Your task to perform on an android device: clear history in the chrome app Image 0: 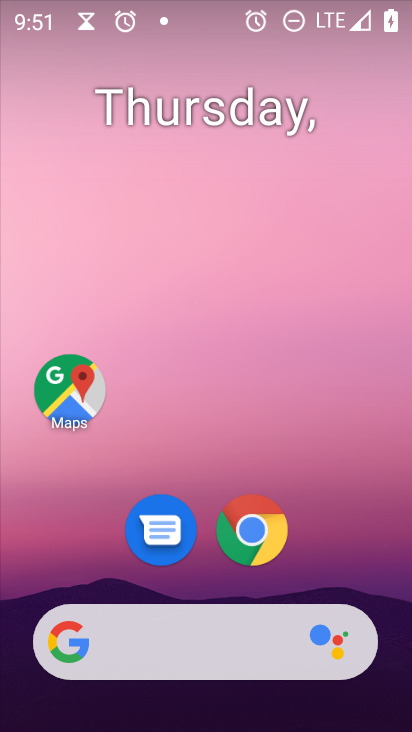
Step 0: drag from (339, 527) to (260, 86)
Your task to perform on an android device: clear history in the chrome app Image 1: 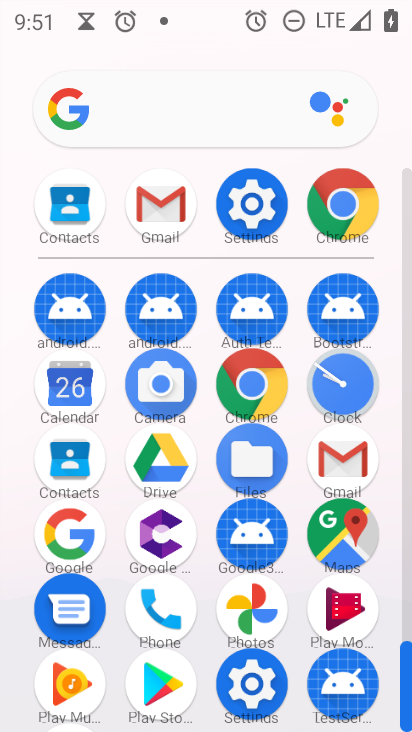
Step 1: drag from (10, 497) to (16, 266)
Your task to perform on an android device: clear history in the chrome app Image 2: 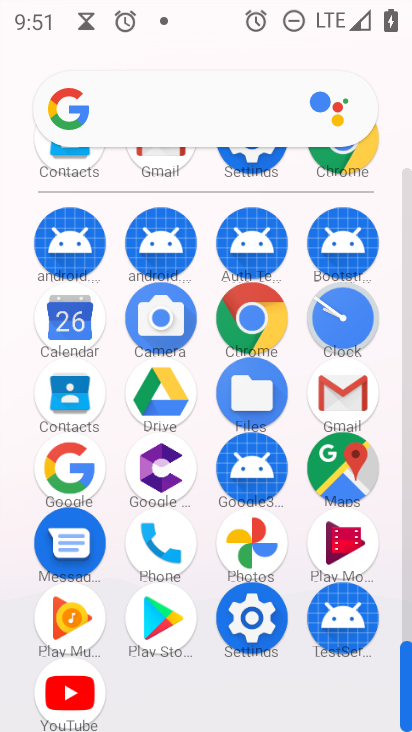
Step 2: click (251, 316)
Your task to perform on an android device: clear history in the chrome app Image 3: 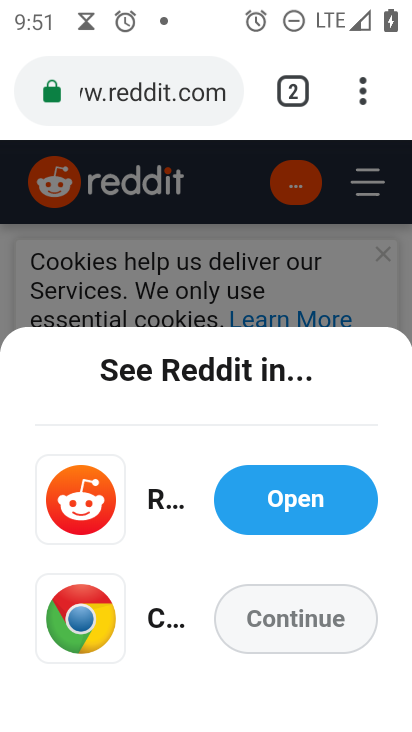
Step 3: drag from (364, 88) to (137, 429)
Your task to perform on an android device: clear history in the chrome app Image 4: 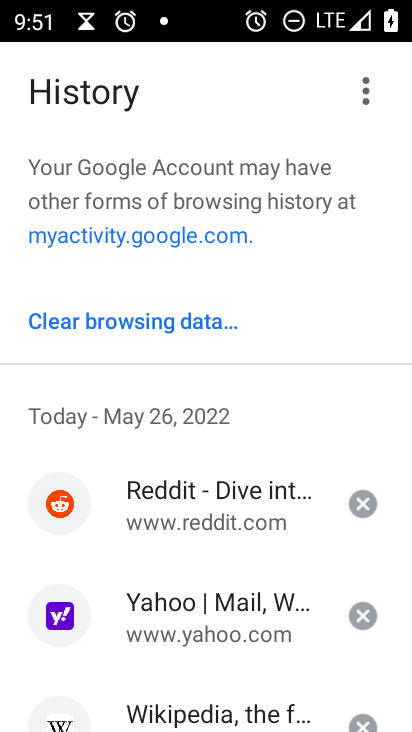
Step 4: click (64, 312)
Your task to perform on an android device: clear history in the chrome app Image 5: 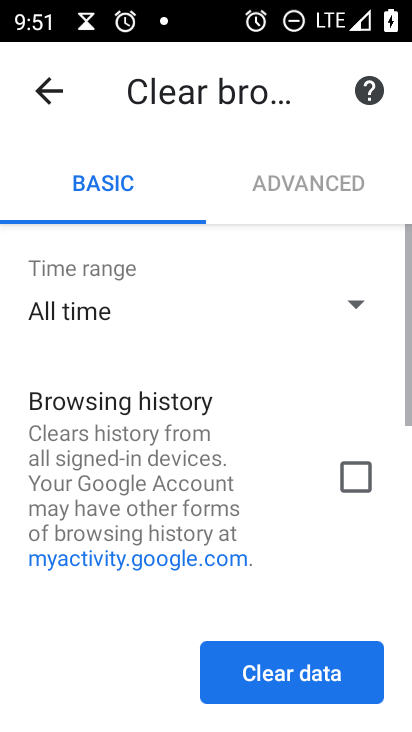
Step 5: drag from (307, 517) to (283, 247)
Your task to perform on an android device: clear history in the chrome app Image 6: 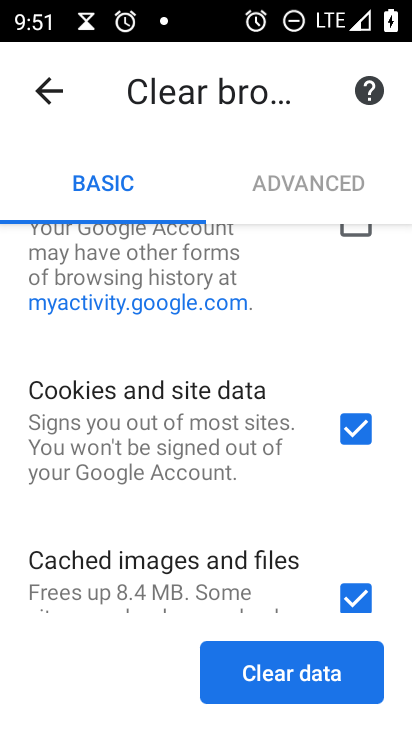
Step 6: click (296, 662)
Your task to perform on an android device: clear history in the chrome app Image 7: 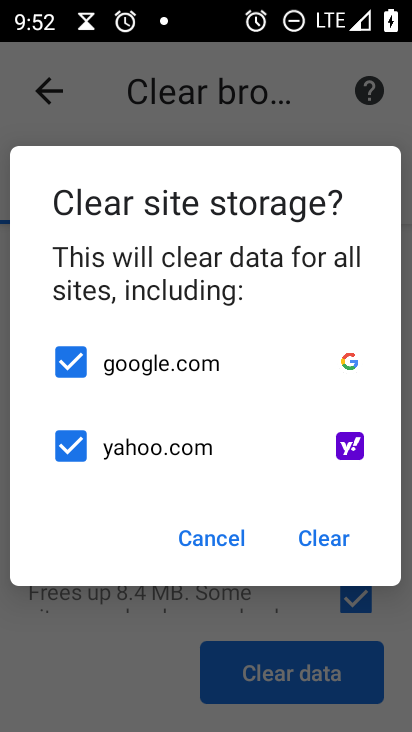
Step 7: click (221, 538)
Your task to perform on an android device: clear history in the chrome app Image 8: 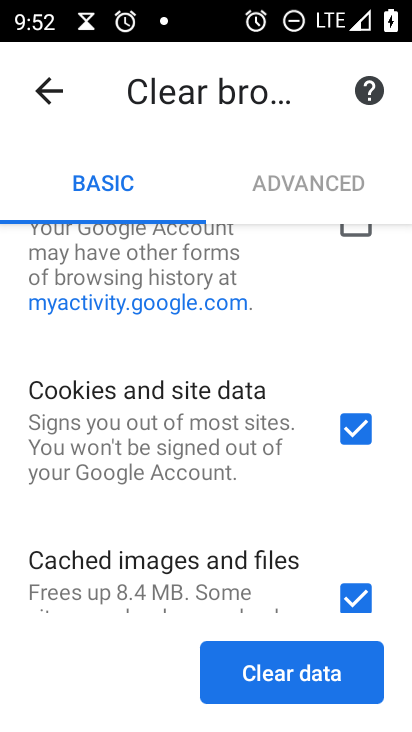
Step 8: drag from (339, 255) to (321, 394)
Your task to perform on an android device: clear history in the chrome app Image 9: 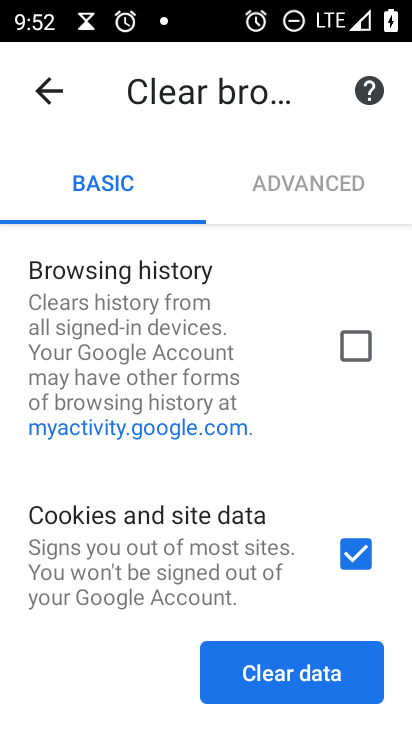
Step 9: click (345, 331)
Your task to perform on an android device: clear history in the chrome app Image 10: 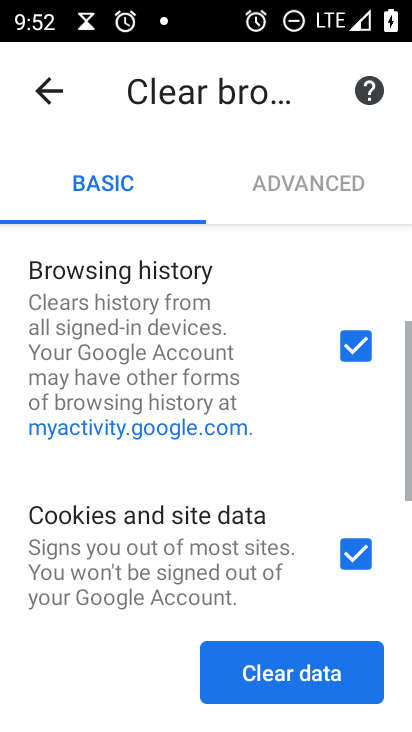
Step 10: drag from (211, 515) to (228, 255)
Your task to perform on an android device: clear history in the chrome app Image 11: 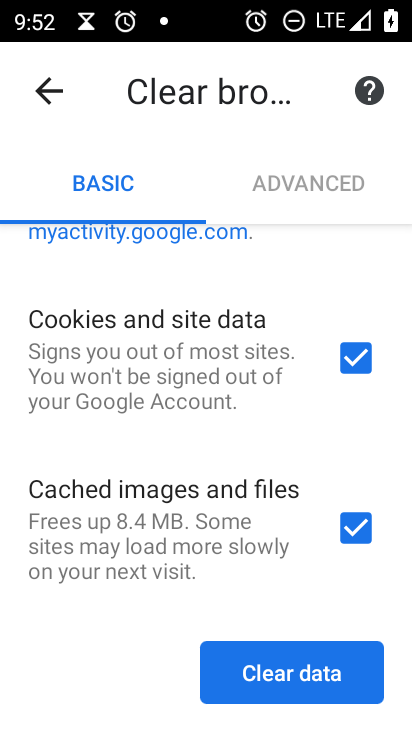
Step 11: click (346, 351)
Your task to perform on an android device: clear history in the chrome app Image 12: 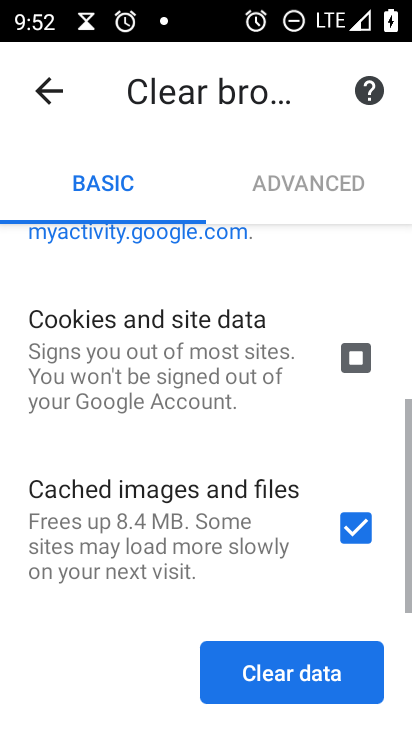
Step 12: click (352, 522)
Your task to perform on an android device: clear history in the chrome app Image 13: 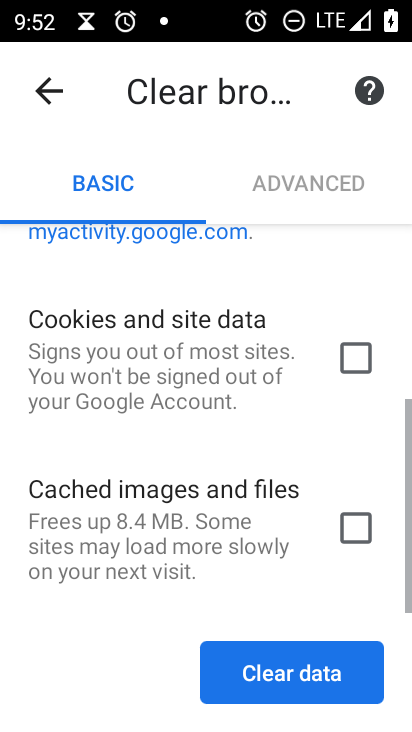
Step 13: click (310, 658)
Your task to perform on an android device: clear history in the chrome app Image 14: 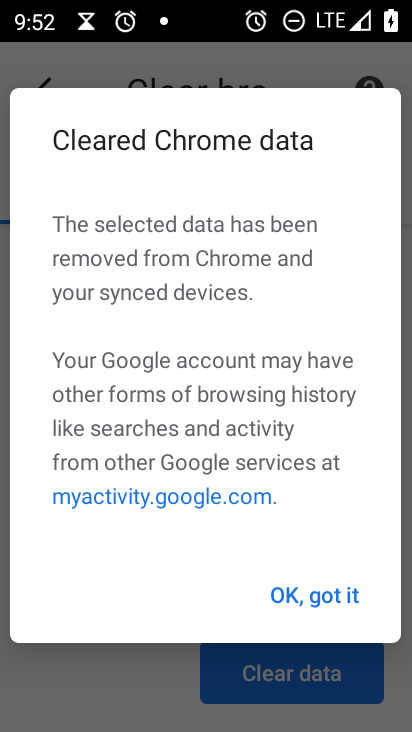
Step 14: click (327, 589)
Your task to perform on an android device: clear history in the chrome app Image 15: 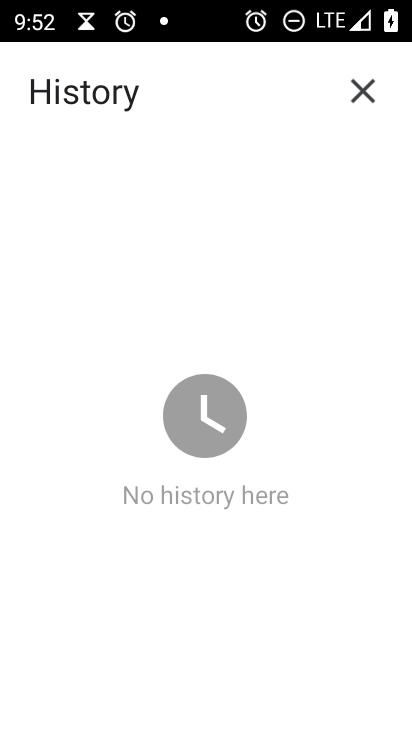
Step 15: task complete